Your task to perform on an android device: Do I have any events this weekend? Image 0: 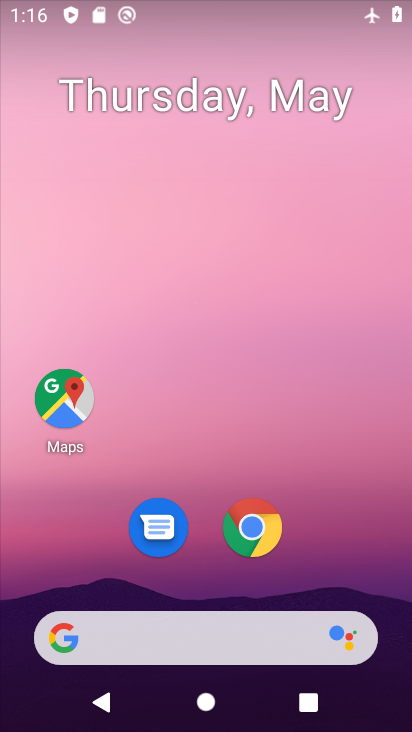
Step 0: click (209, 577)
Your task to perform on an android device: Do I have any events this weekend? Image 1: 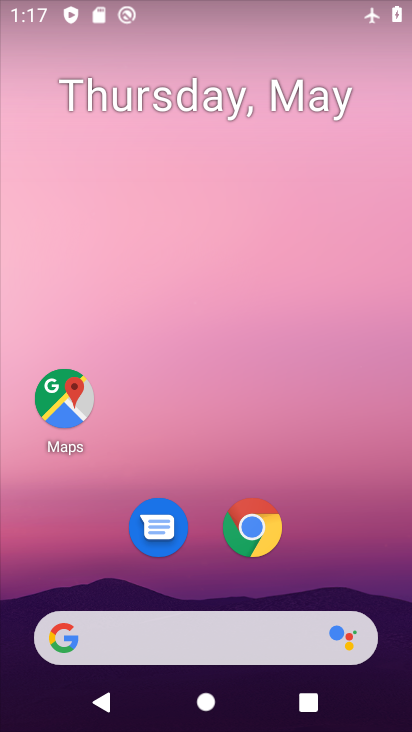
Step 1: drag from (219, 543) to (219, 414)
Your task to perform on an android device: Do I have any events this weekend? Image 2: 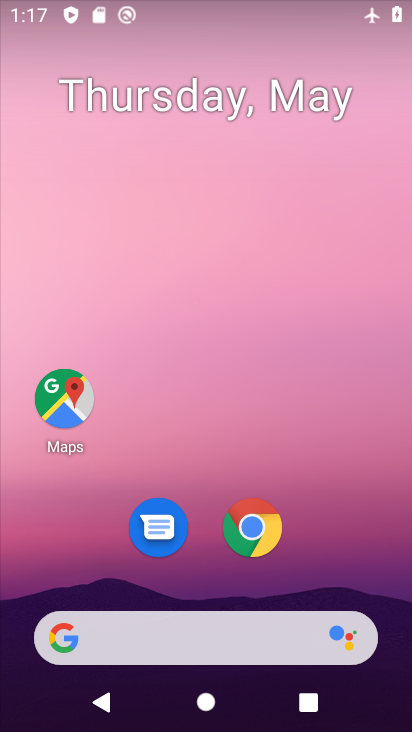
Step 2: drag from (204, 551) to (275, 11)
Your task to perform on an android device: Do I have any events this weekend? Image 3: 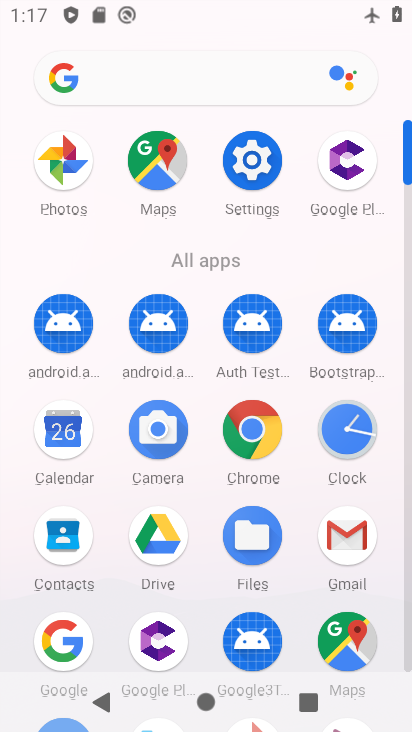
Step 3: click (66, 443)
Your task to perform on an android device: Do I have any events this weekend? Image 4: 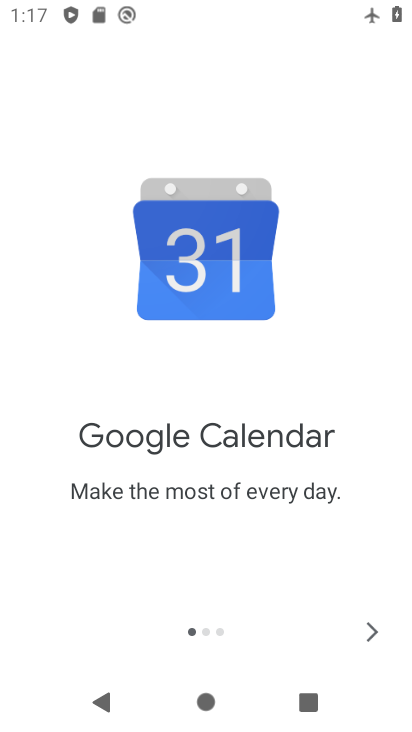
Step 4: click (374, 630)
Your task to perform on an android device: Do I have any events this weekend? Image 5: 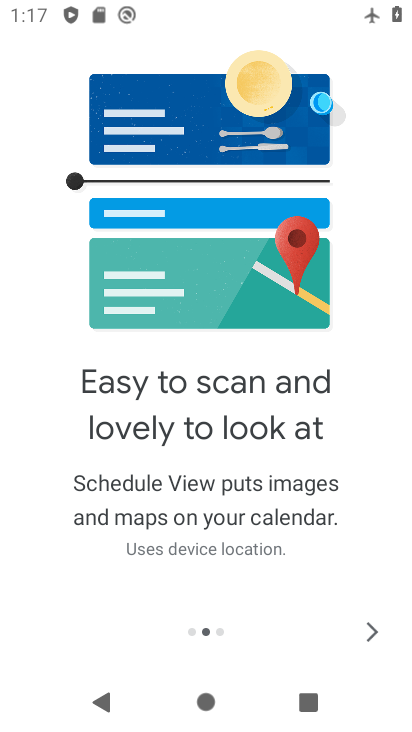
Step 5: click (371, 629)
Your task to perform on an android device: Do I have any events this weekend? Image 6: 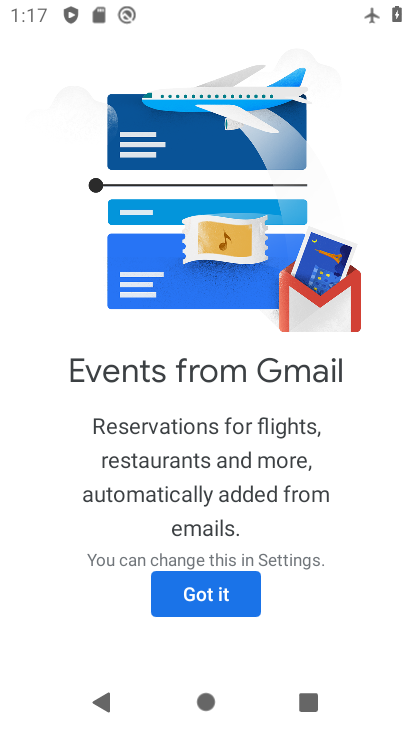
Step 6: click (194, 592)
Your task to perform on an android device: Do I have any events this weekend? Image 7: 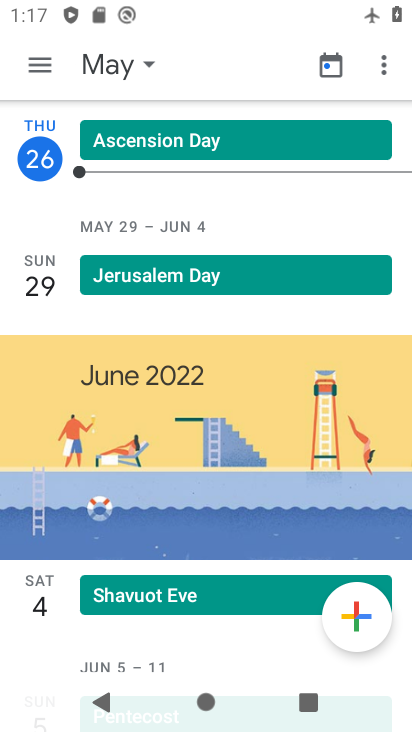
Step 7: click (131, 73)
Your task to perform on an android device: Do I have any events this weekend? Image 8: 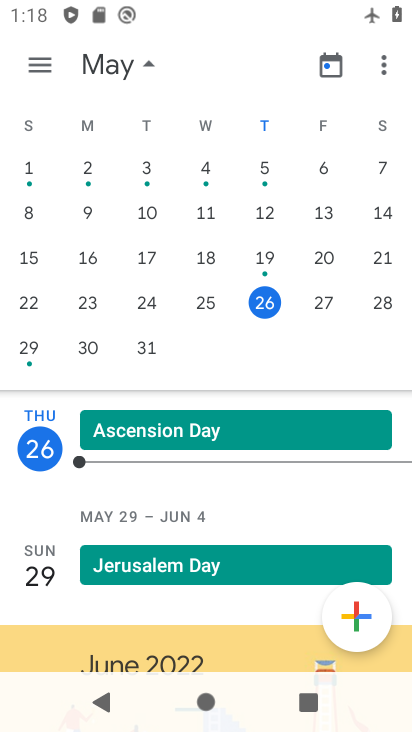
Step 8: click (375, 305)
Your task to perform on an android device: Do I have any events this weekend? Image 9: 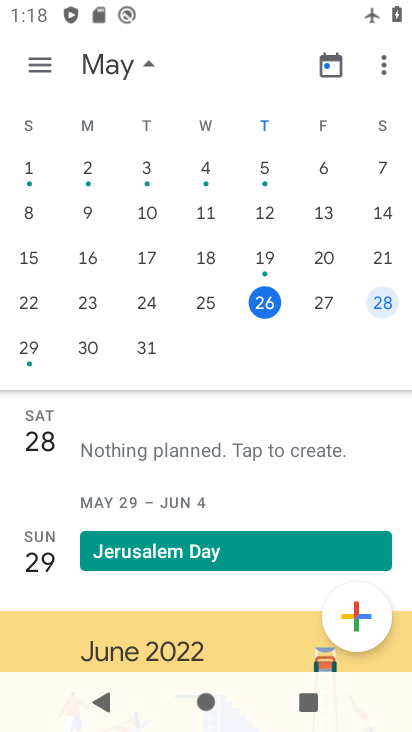
Step 9: task complete